Your task to perform on an android device: Open notification settings Image 0: 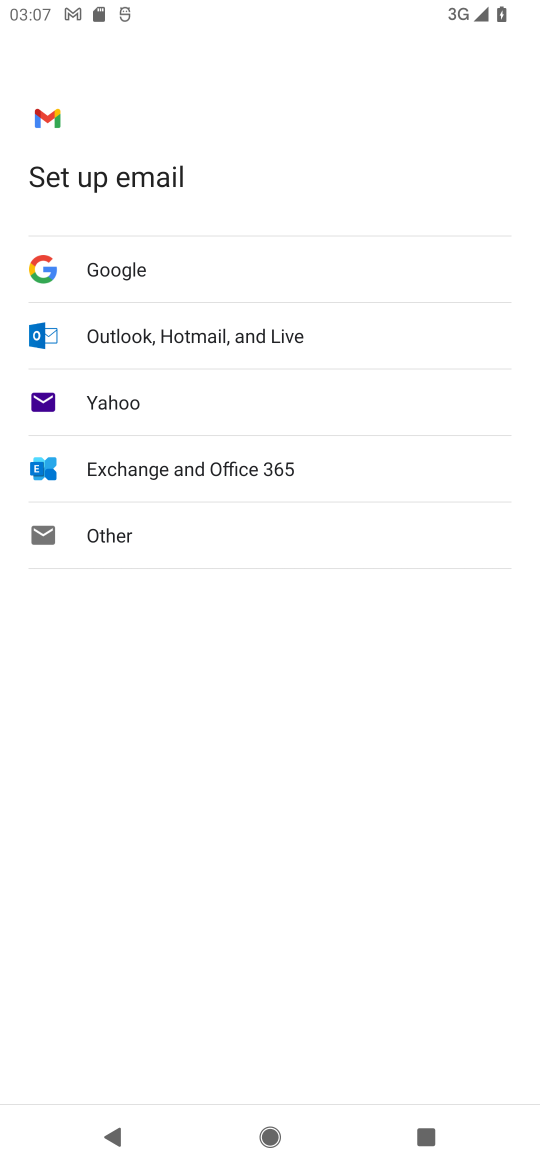
Step 0: press home button
Your task to perform on an android device: Open notification settings Image 1: 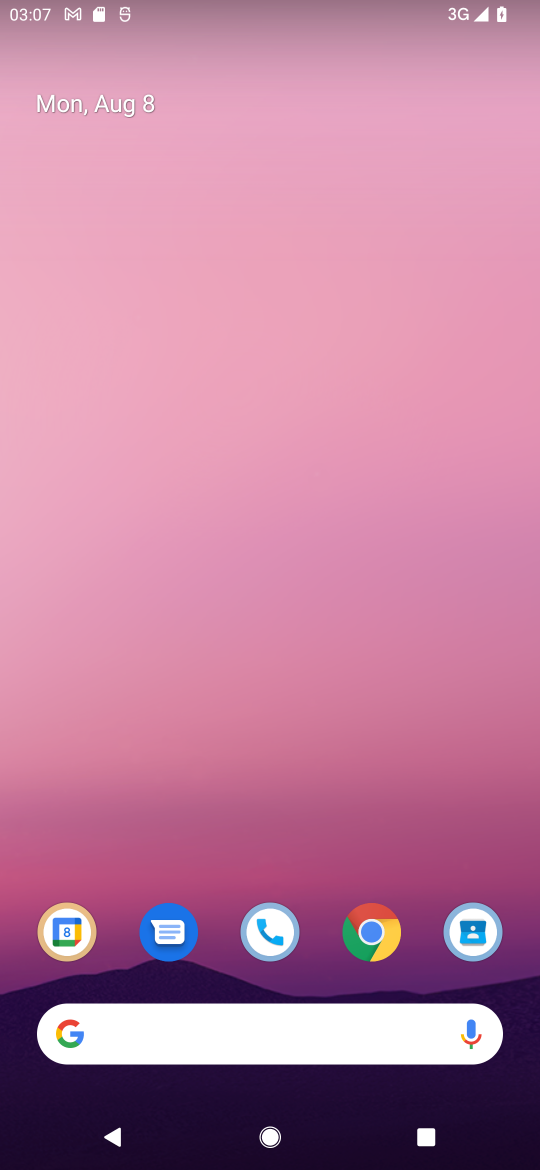
Step 1: drag from (175, 1057) to (323, 0)
Your task to perform on an android device: Open notification settings Image 2: 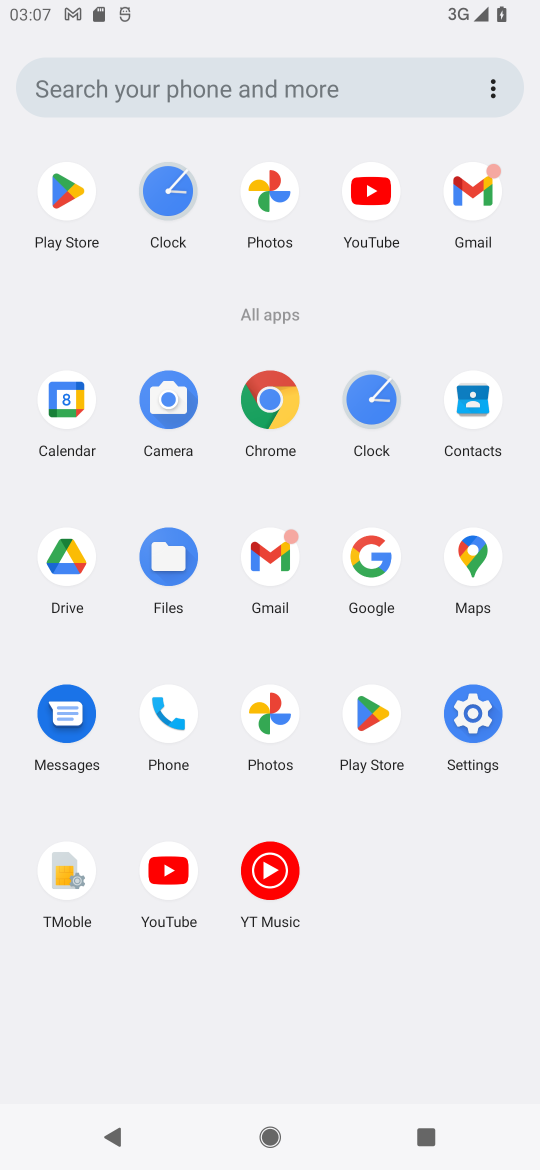
Step 2: click (493, 718)
Your task to perform on an android device: Open notification settings Image 3: 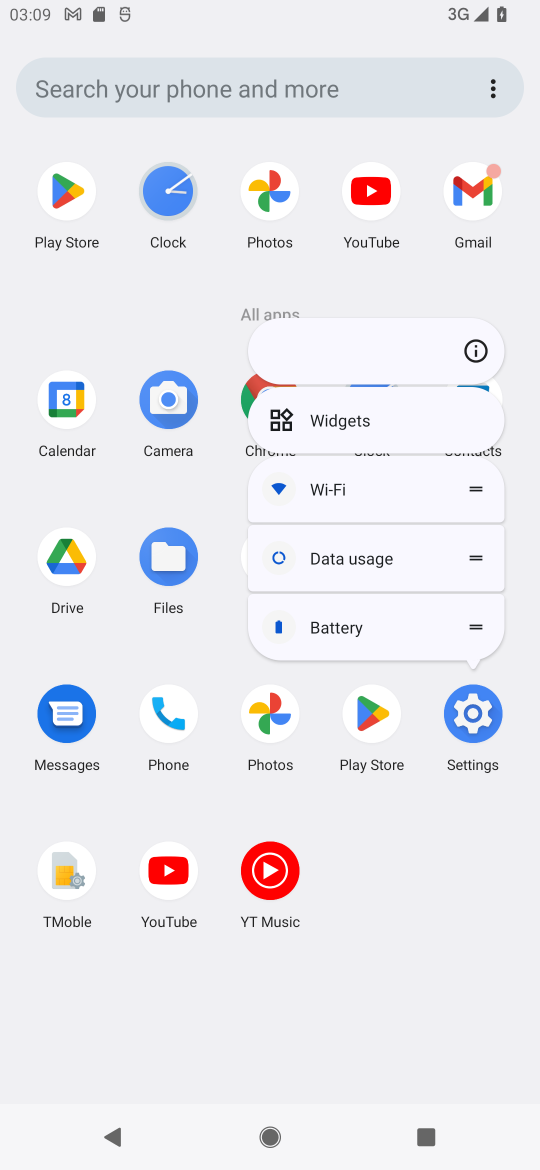
Step 3: click (472, 705)
Your task to perform on an android device: Open notification settings Image 4: 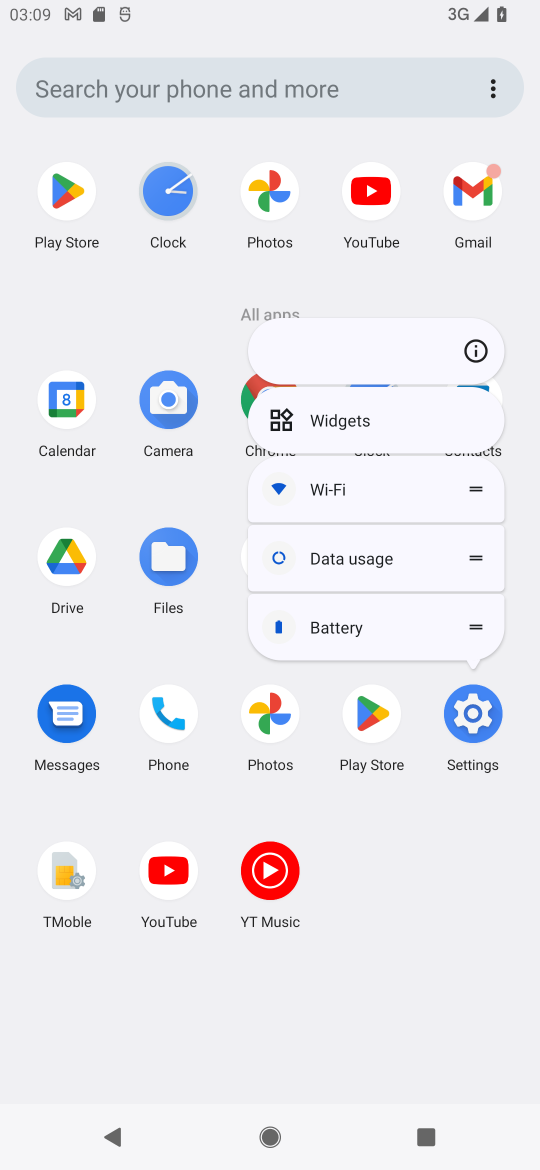
Step 4: click (465, 695)
Your task to perform on an android device: Open notification settings Image 5: 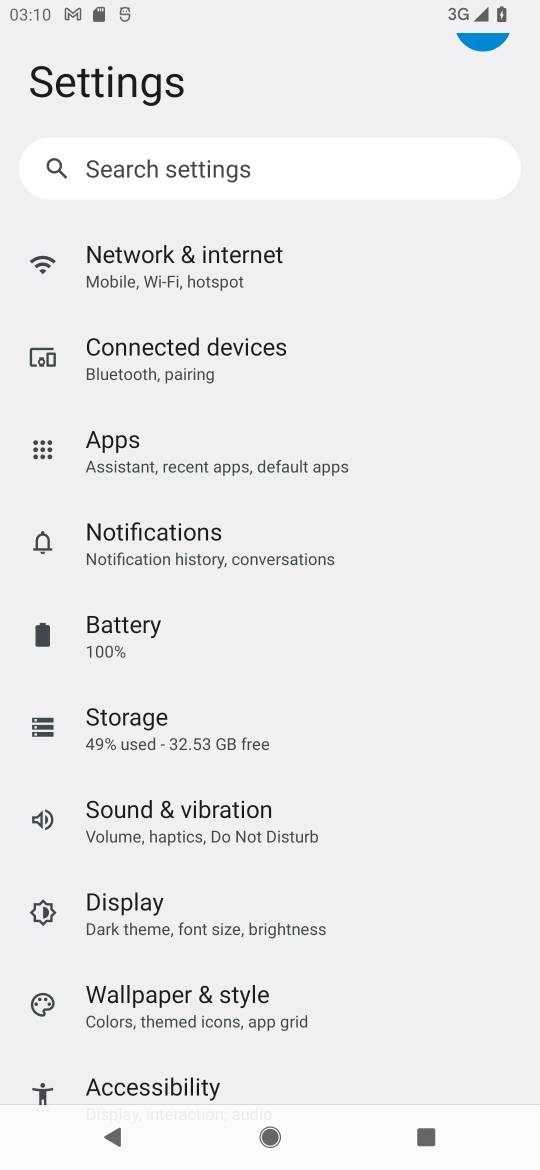
Step 5: click (168, 548)
Your task to perform on an android device: Open notification settings Image 6: 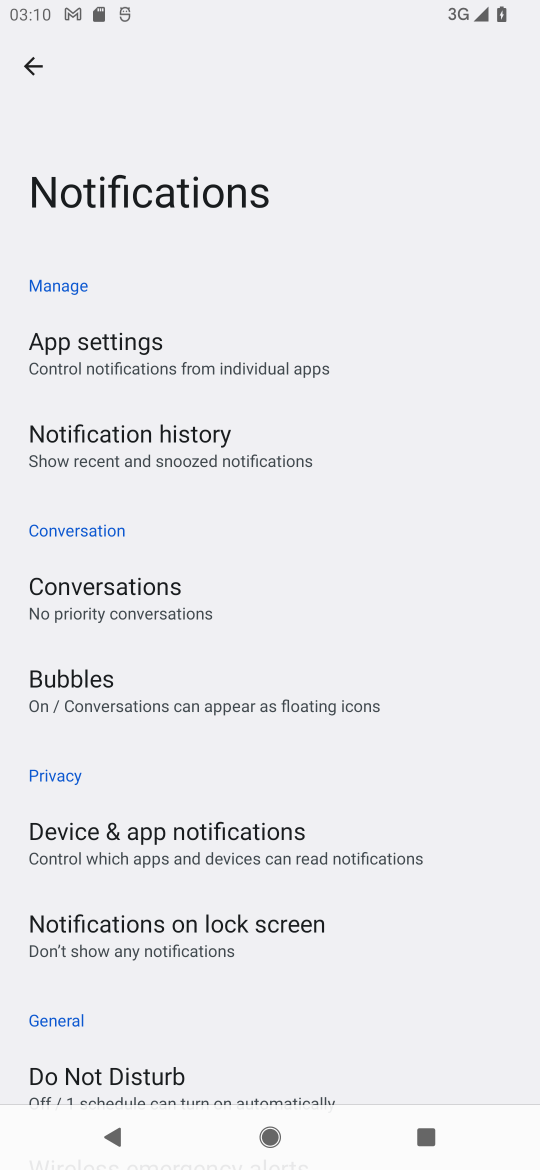
Step 6: click (112, 839)
Your task to perform on an android device: Open notification settings Image 7: 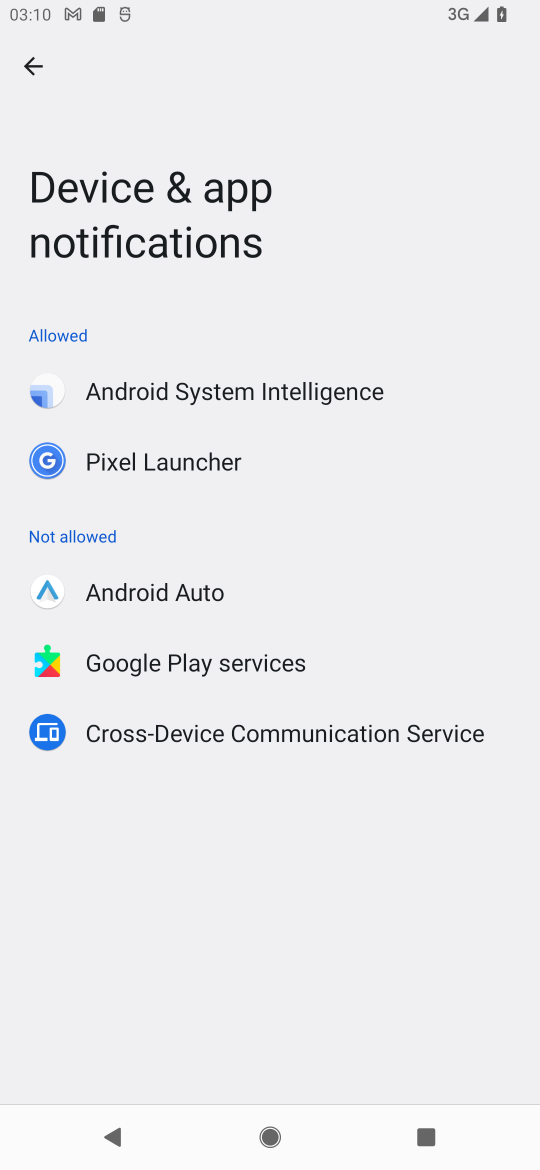
Step 7: task complete